Your task to perform on an android device: Open CNN.com Image 0: 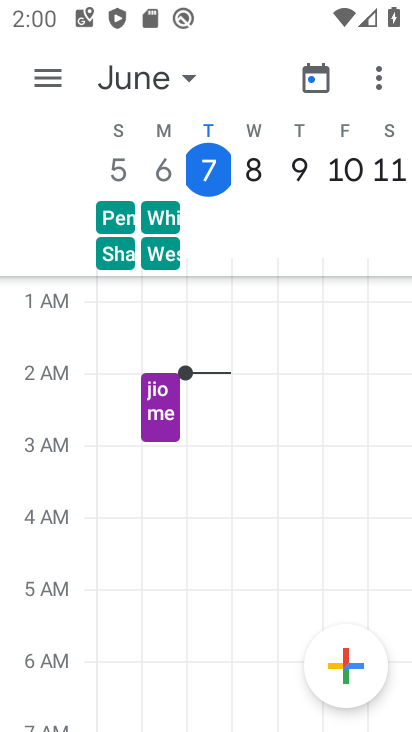
Step 0: press back button
Your task to perform on an android device: Open CNN.com Image 1: 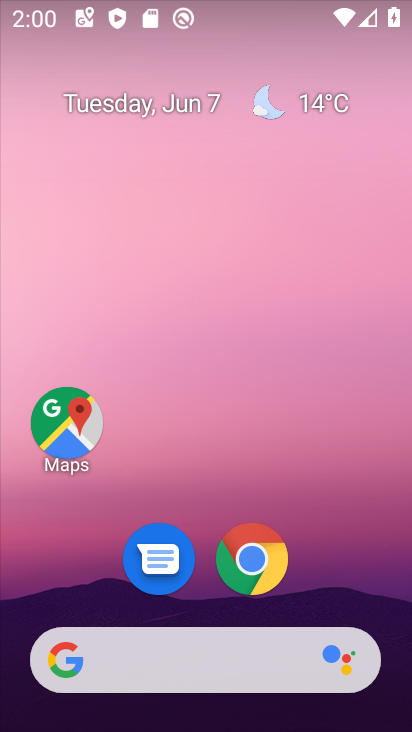
Step 1: drag from (333, 557) to (200, 8)
Your task to perform on an android device: Open CNN.com Image 2: 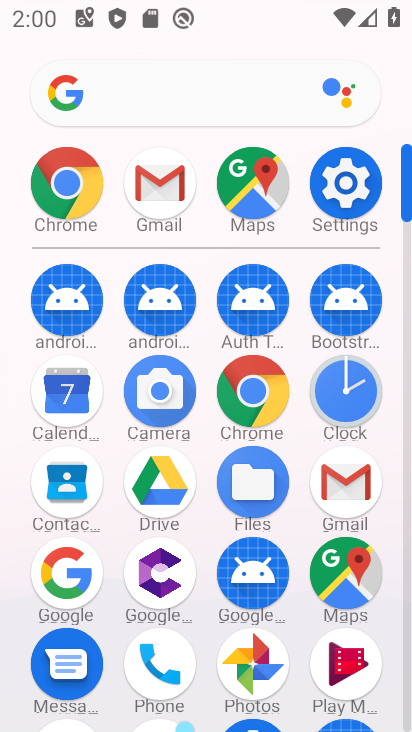
Step 2: click (251, 397)
Your task to perform on an android device: Open CNN.com Image 3: 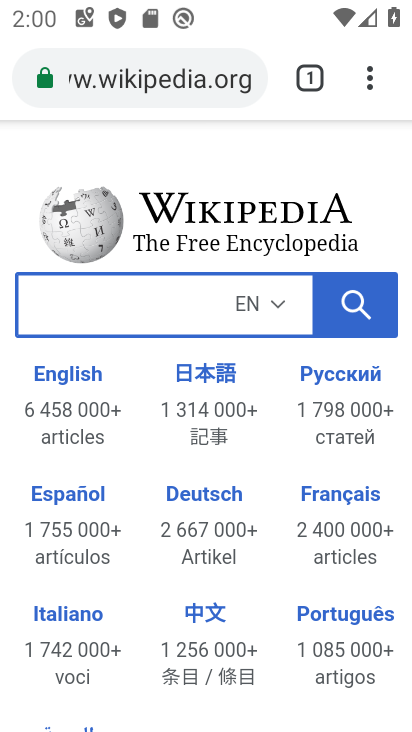
Step 3: click (144, 71)
Your task to perform on an android device: Open CNN.com Image 4: 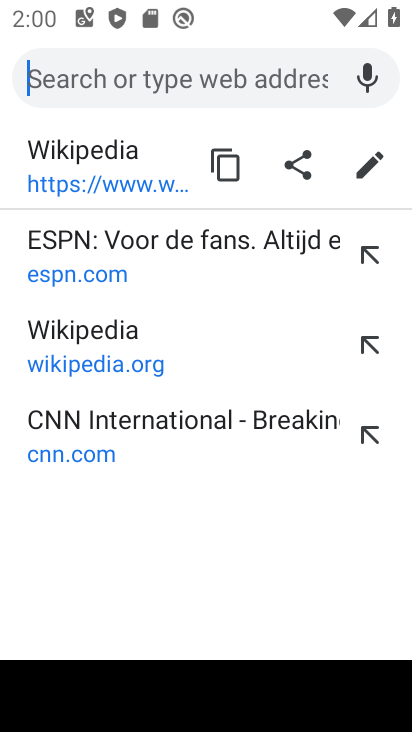
Step 4: click (146, 409)
Your task to perform on an android device: Open CNN.com Image 5: 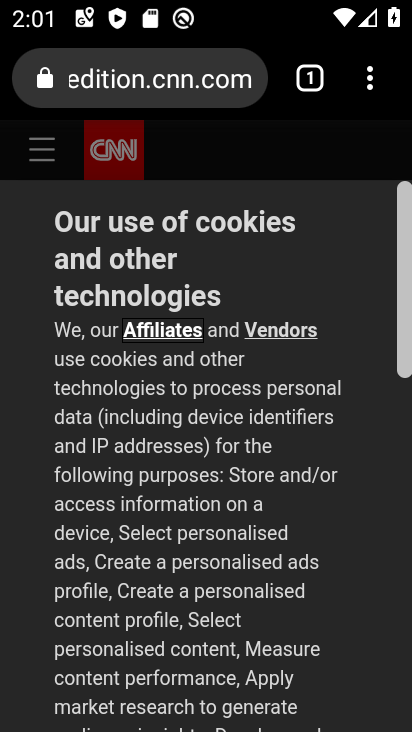
Step 5: task complete